Your task to perform on an android device: turn vacation reply on in the gmail app Image 0: 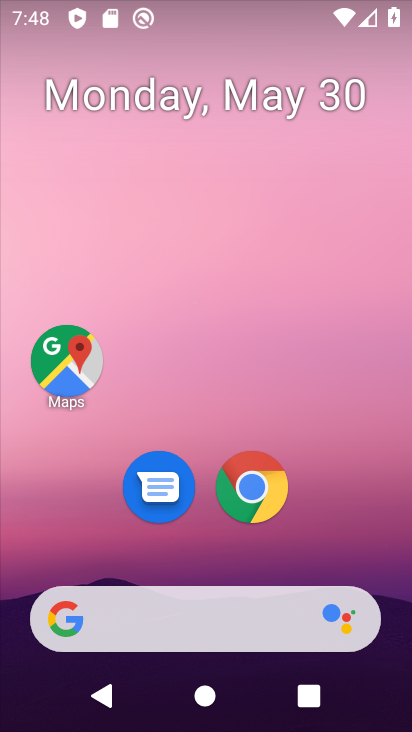
Step 0: drag from (283, 519) to (309, 182)
Your task to perform on an android device: turn vacation reply on in the gmail app Image 1: 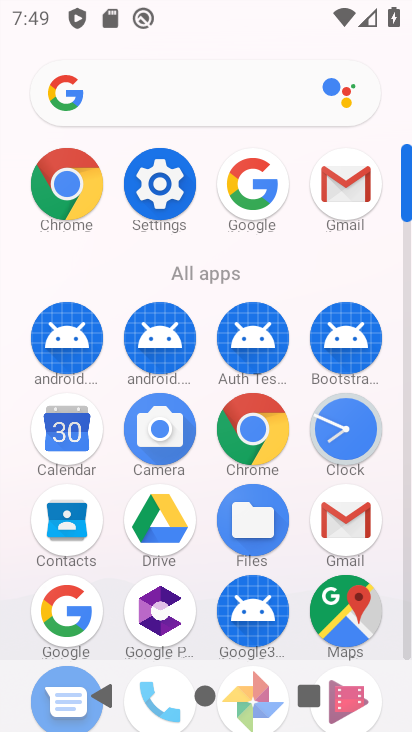
Step 1: click (334, 189)
Your task to perform on an android device: turn vacation reply on in the gmail app Image 2: 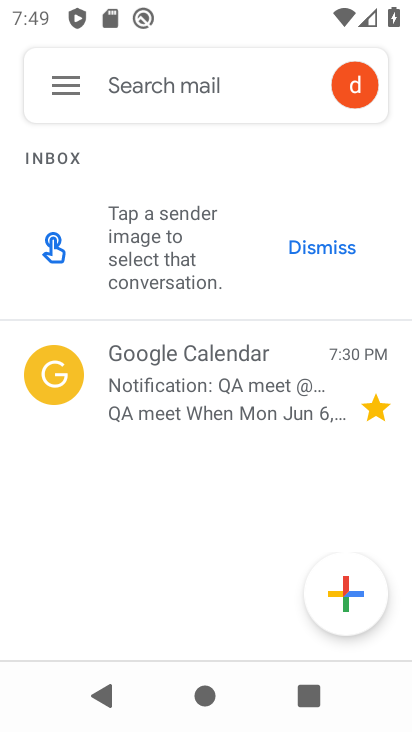
Step 2: click (67, 77)
Your task to perform on an android device: turn vacation reply on in the gmail app Image 3: 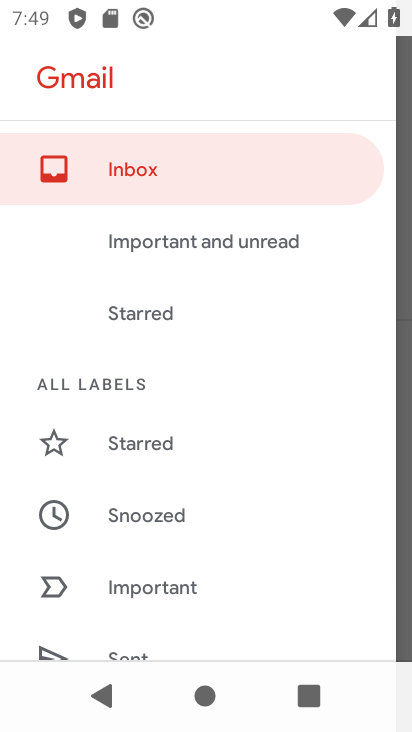
Step 3: drag from (239, 588) to (244, 211)
Your task to perform on an android device: turn vacation reply on in the gmail app Image 4: 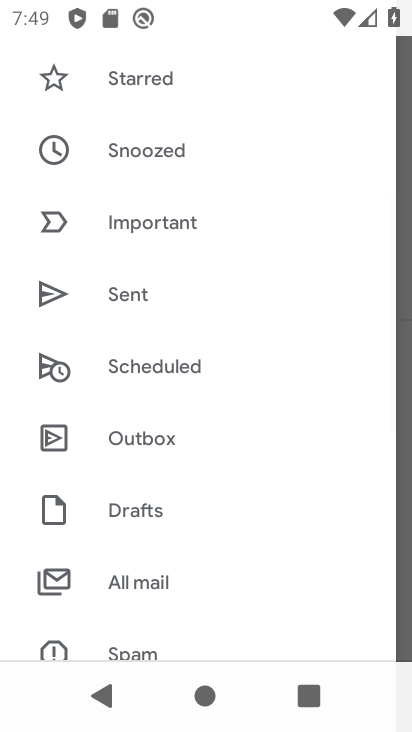
Step 4: drag from (194, 598) to (223, 168)
Your task to perform on an android device: turn vacation reply on in the gmail app Image 5: 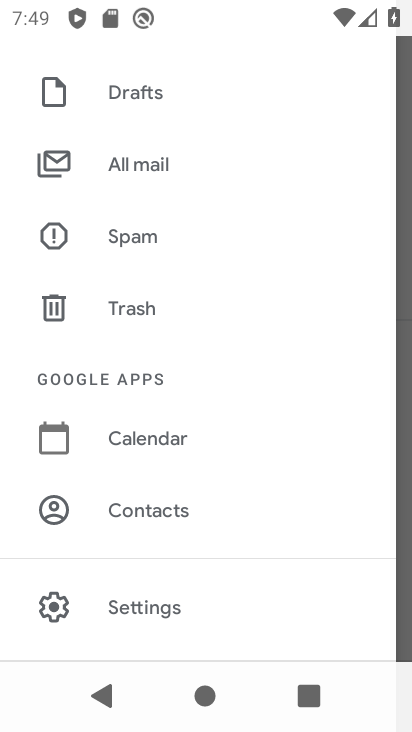
Step 5: drag from (190, 490) to (223, 332)
Your task to perform on an android device: turn vacation reply on in the gmail app Image 6: 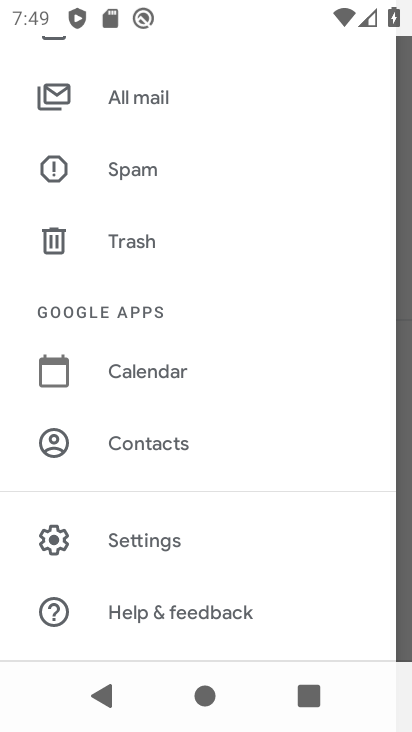
Step 6: click (117, 543)
Your task to perform on an android device: turn vacation reply on in the gmail app Image 7: 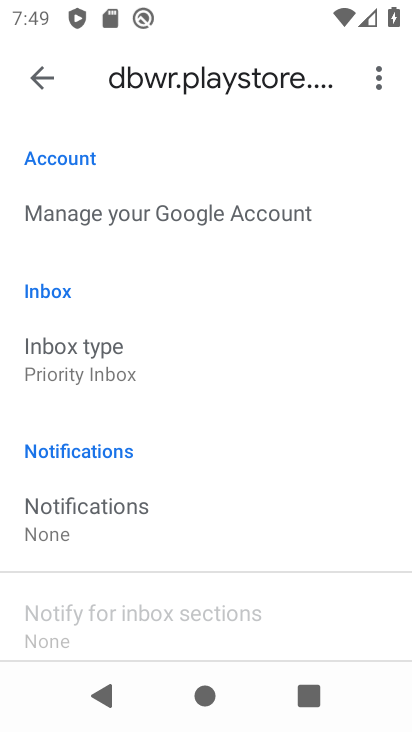
Step 7: drag from (249, 585) to (326, 194)
Your task to perform on an android device: turn vacation reply on in the gmail app Image 8: 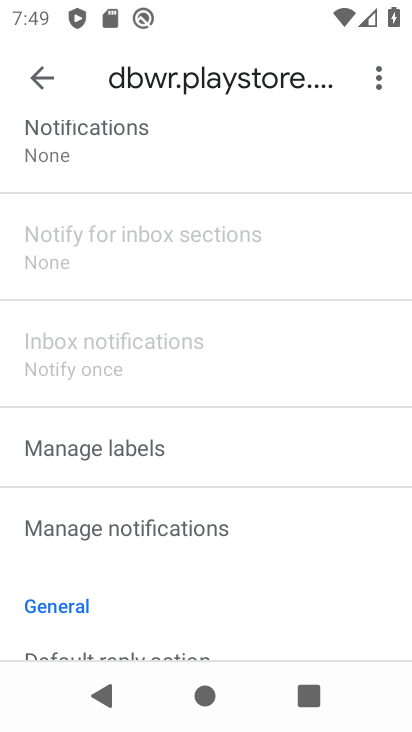
Step 8: drag from (298, 515) to (282, 153)
Your task to perform on an android device: turn vacation reply on in the gmail app Image 9: 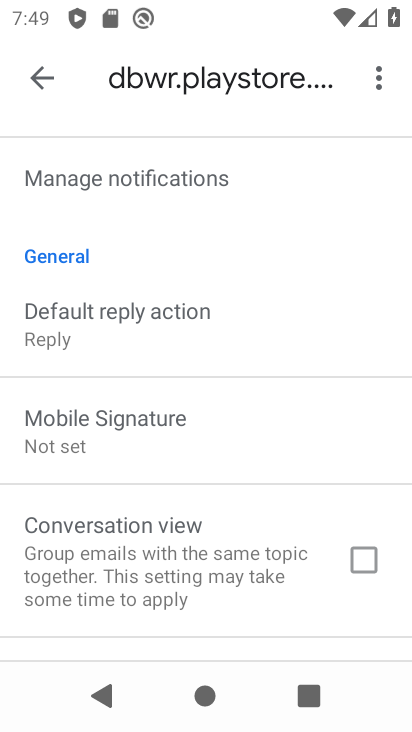
Step 9: drag from (233, 538) to (294, 128)
Your task to perform on an android device: turn vacation reply on in the gmail app Image 10: 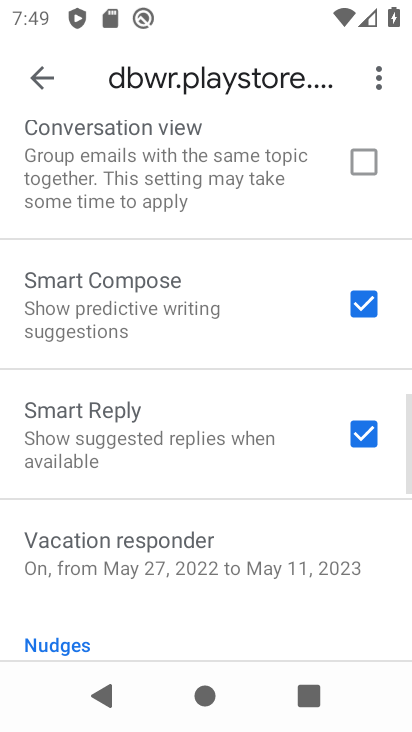
Step 10: drag from (156, 572) to (214, 347)
Your task to perform on an android device: turn vacation reply on in the gmail app Image 11: 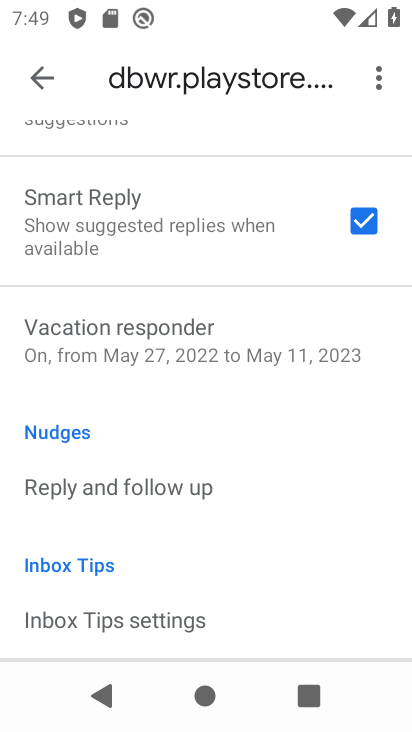
Step 11: click (147, 325)
Your task to perform on an android device: turn vacation reply on in the gmail app Image 12: 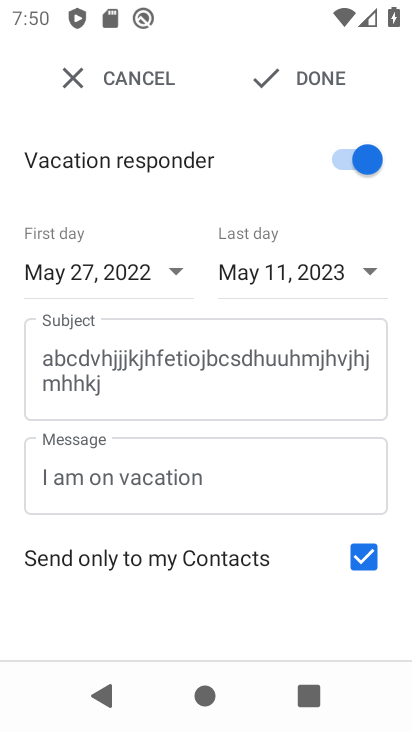
Step 12: task complete